Your task to perform on an android device: turn off smart reply in the gmail app Image 0: 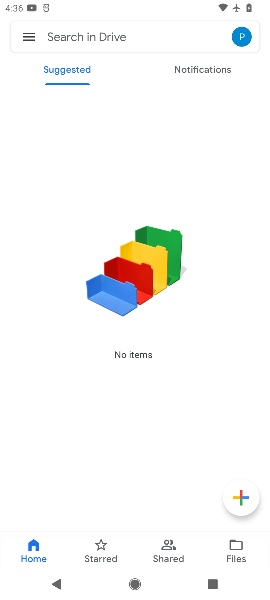
Step 0: press home button
Your task to perform on an android device: turn off smart reply in the gmail app Image 1: 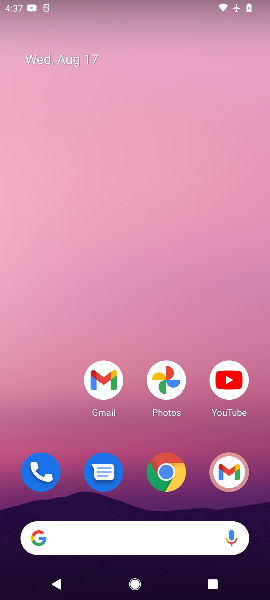
Step 1: click (94, 377)
Your task to perform on an android device: turn off smart reply in the gmail app Image 2: 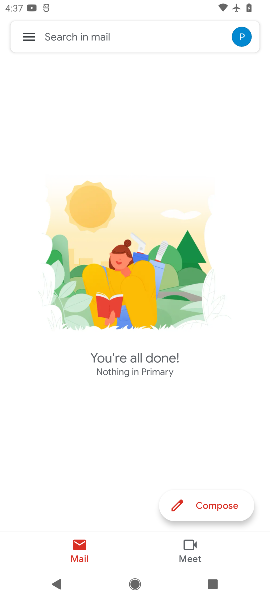
Step 2: click (29, 39)
Your task to perform on an android device: turn off smart reply in the gmail app Image 3: 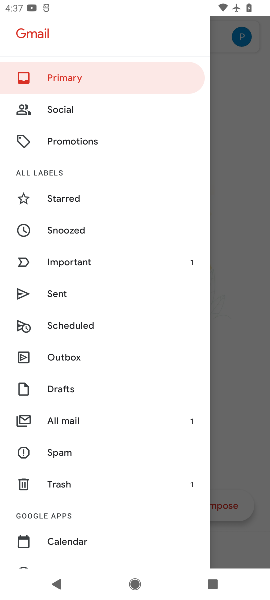
Step 3: drag from (65, 506) to (127, 218)
Your task to perform on an android device: turn off smart reply in the gmail app Image 4: 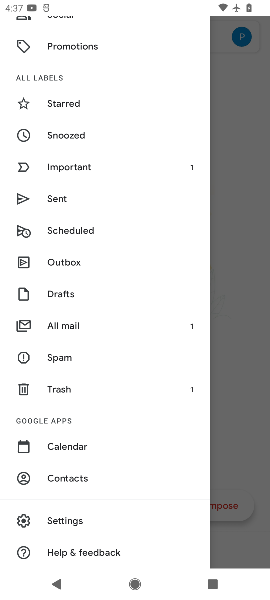
Step 4: click (67, 523)
Your task to perform on an android device: turn off smart reply in the gmail app Image 5: 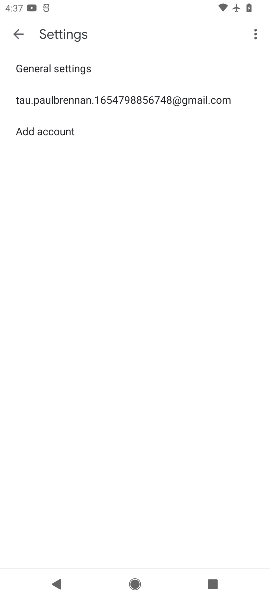
Step 5: click (83, 98)
Your task to perform on an android device: turn off smart reply in the gmail app Image 6: 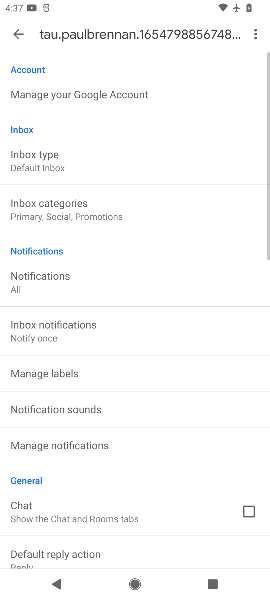
Step 6: drag from (128, 509) to (195, 198)
Your task to perform on an android device: turn off smart reply in the gmail app Image 7: 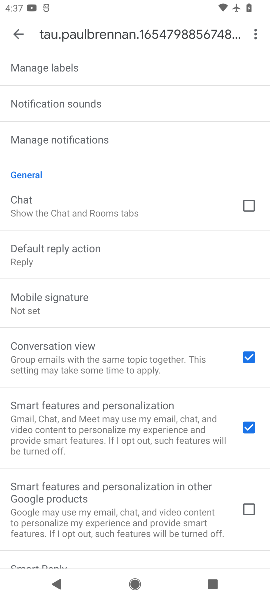
Step 7: drag from (141, 473) to (191, 233)
Your task to perform on an android device: turn off smart reply in the gmail app Image 8: 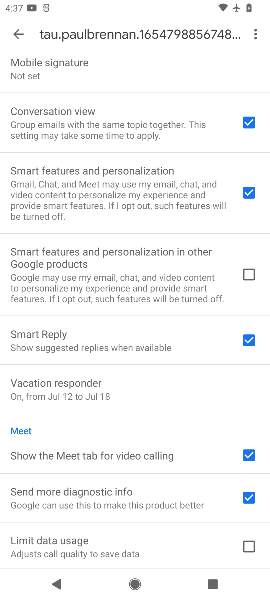
Step 8: click (242, 334)
Your task to perform on an android device: turn off smart reply in the gmail app Image 9: 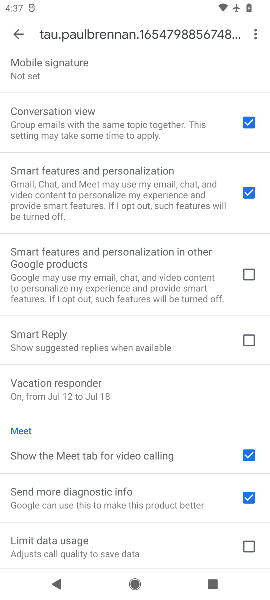
Step 9: task complete